Your task to perform on an android device: set the timer Image 0: 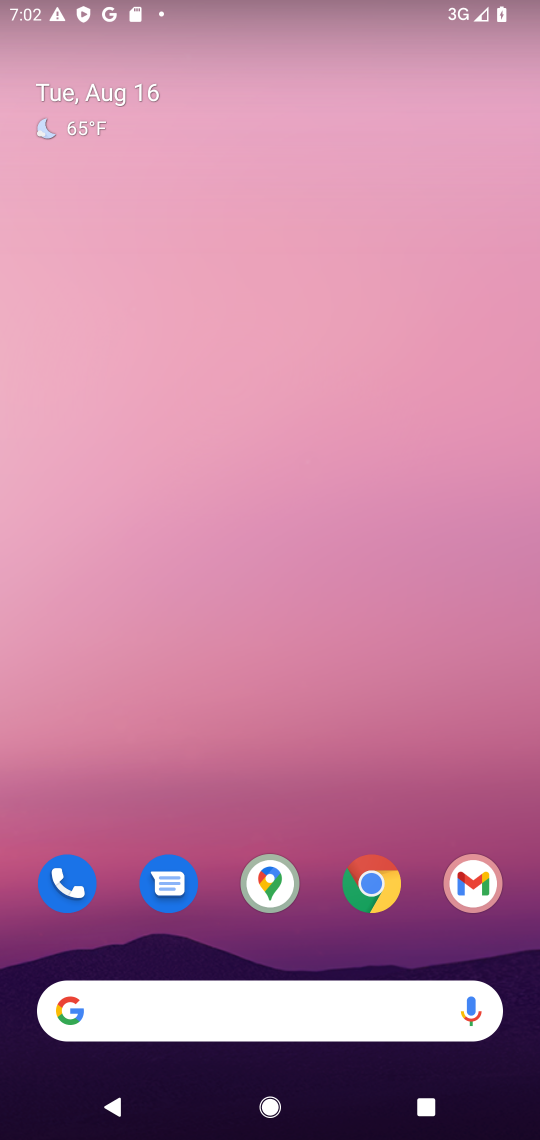
Step 0: drag from (232, 1018) to (303, 401)
Your task to perform on an android device: set the timer Image 1: 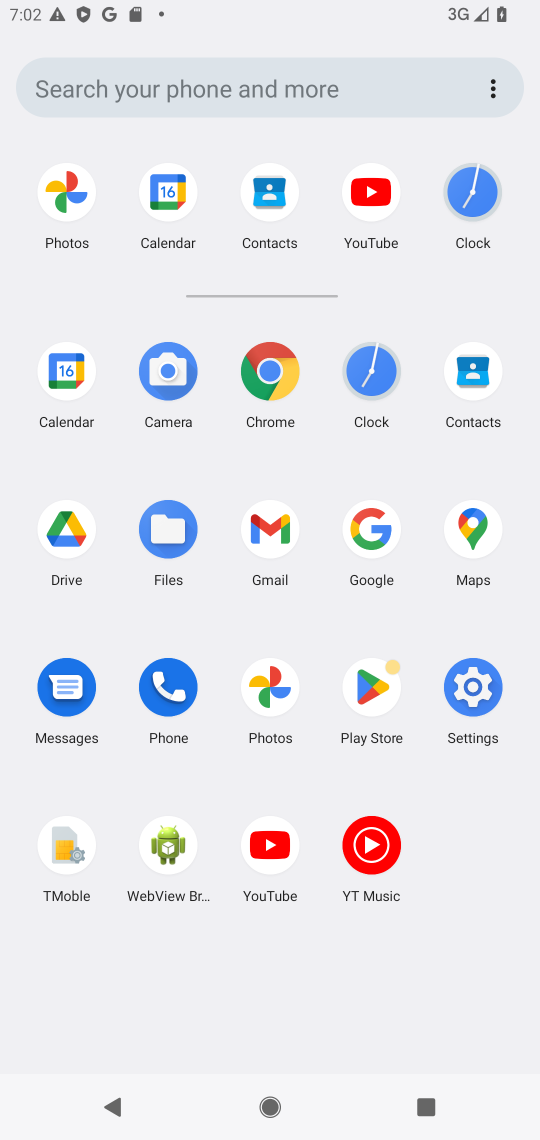
Step 1: click (473, 196)
Your task to perform on an android device: set the timer Image 2: 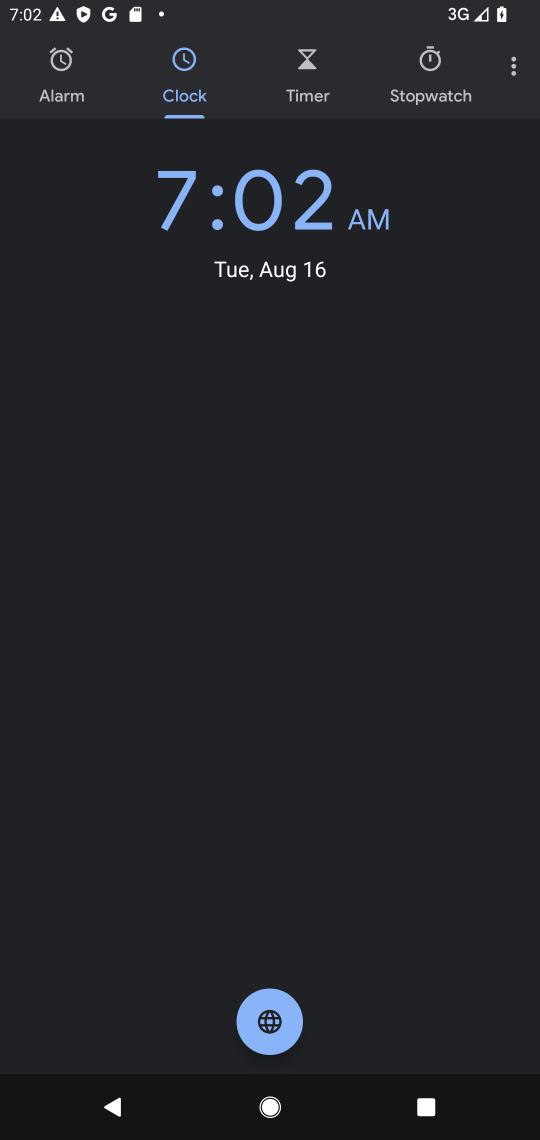
Step 2: click (308, 67)
Your task to perform on an android device: set the timer Image 3: 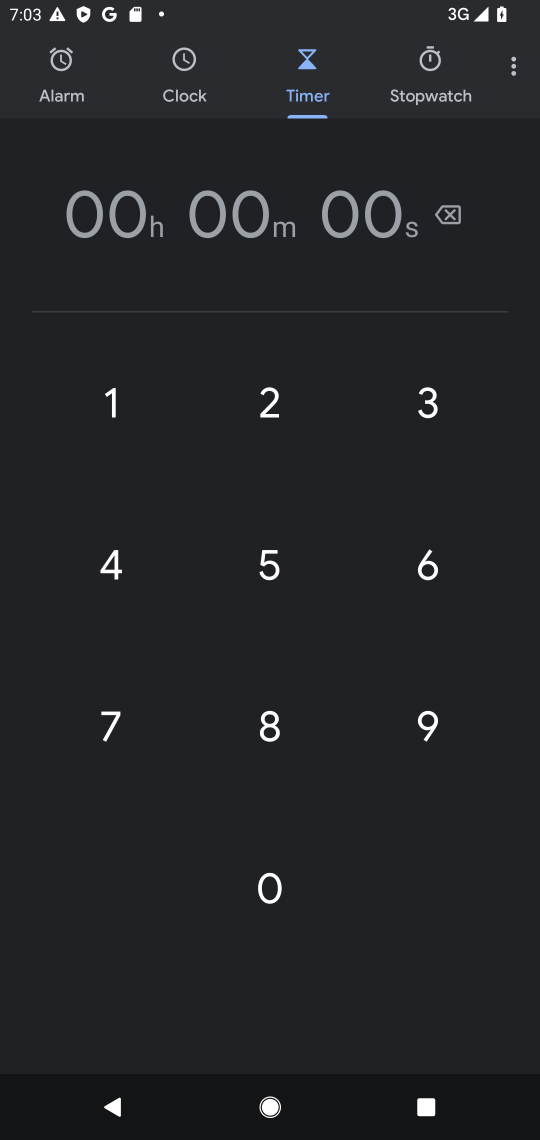
Step 3: type "136"
Your task to perform on an android device: set the timer Image 4: 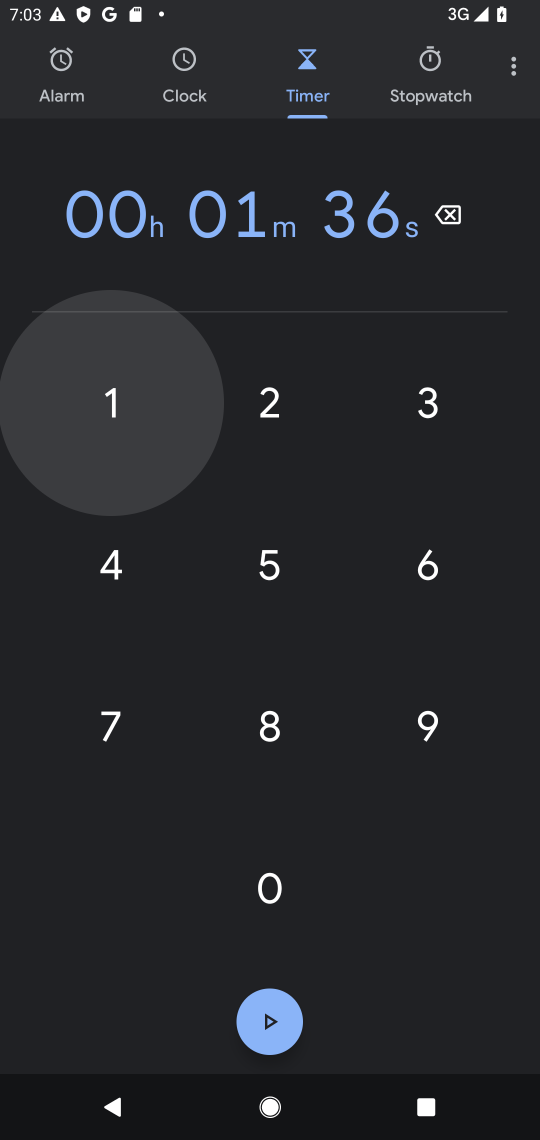
Step 4: click (293, 1037)
Your task to perform on an android device: set the timer Image 5: 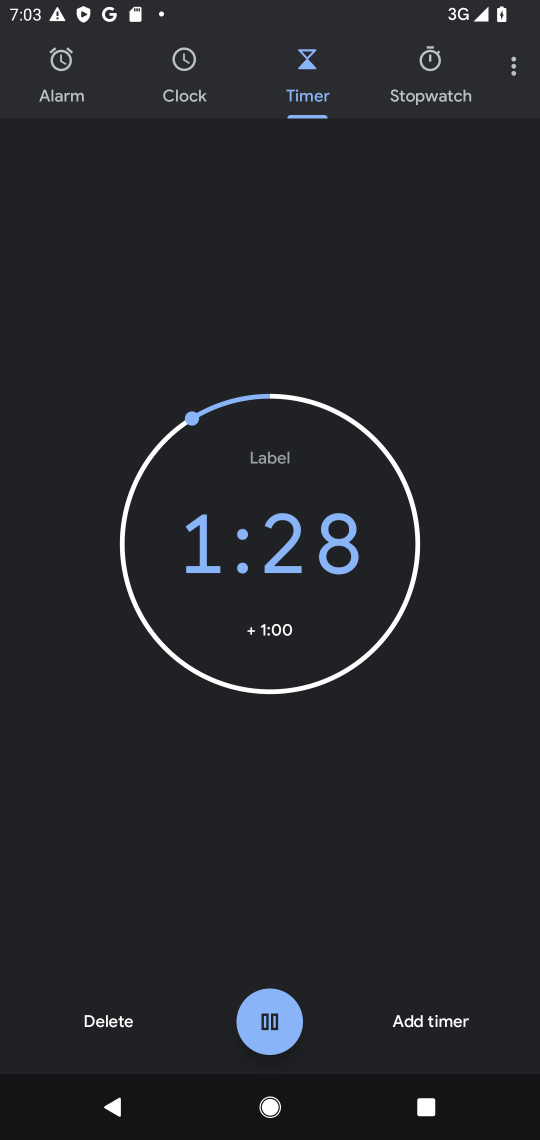
Step 5: click (293, 1037)
Your task to perform on an android device: set the timer Image 6: 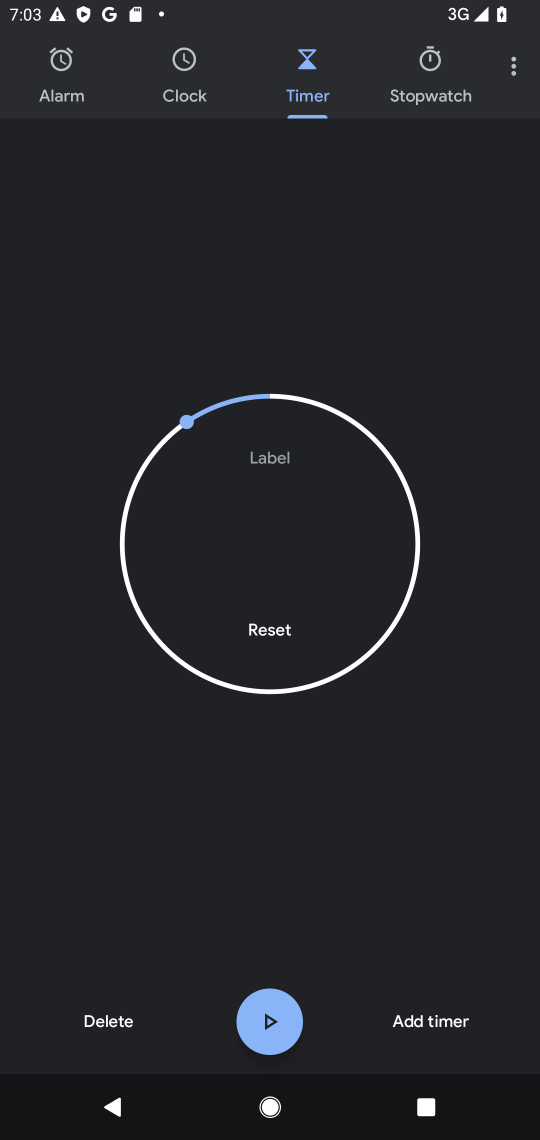
Step 6: task complete